Your task to perform on an android device: What's on my calendar today? Image 0: 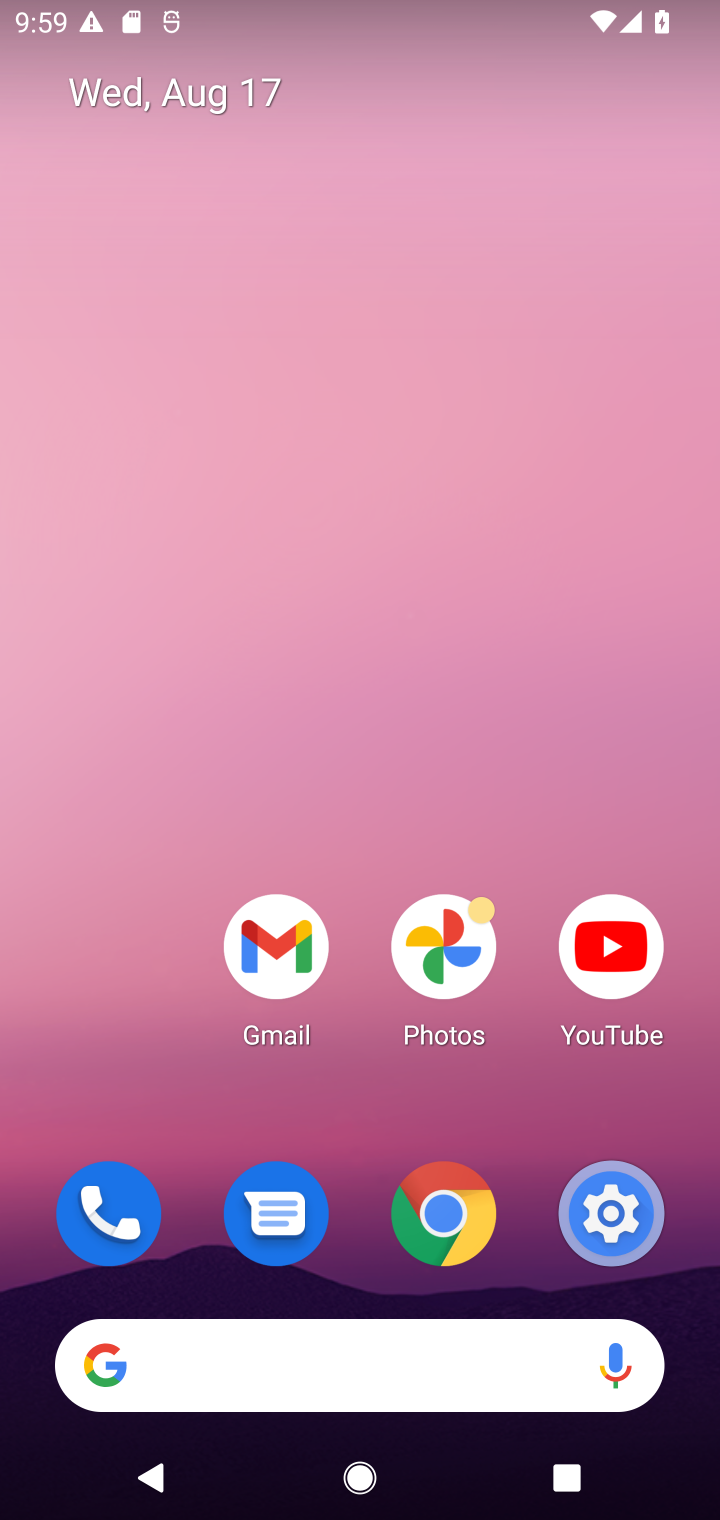
Step 0: drag from (537, 1135) to (243, 9)
Your task to perform on an android device: What's on my calendar today? Image 1: 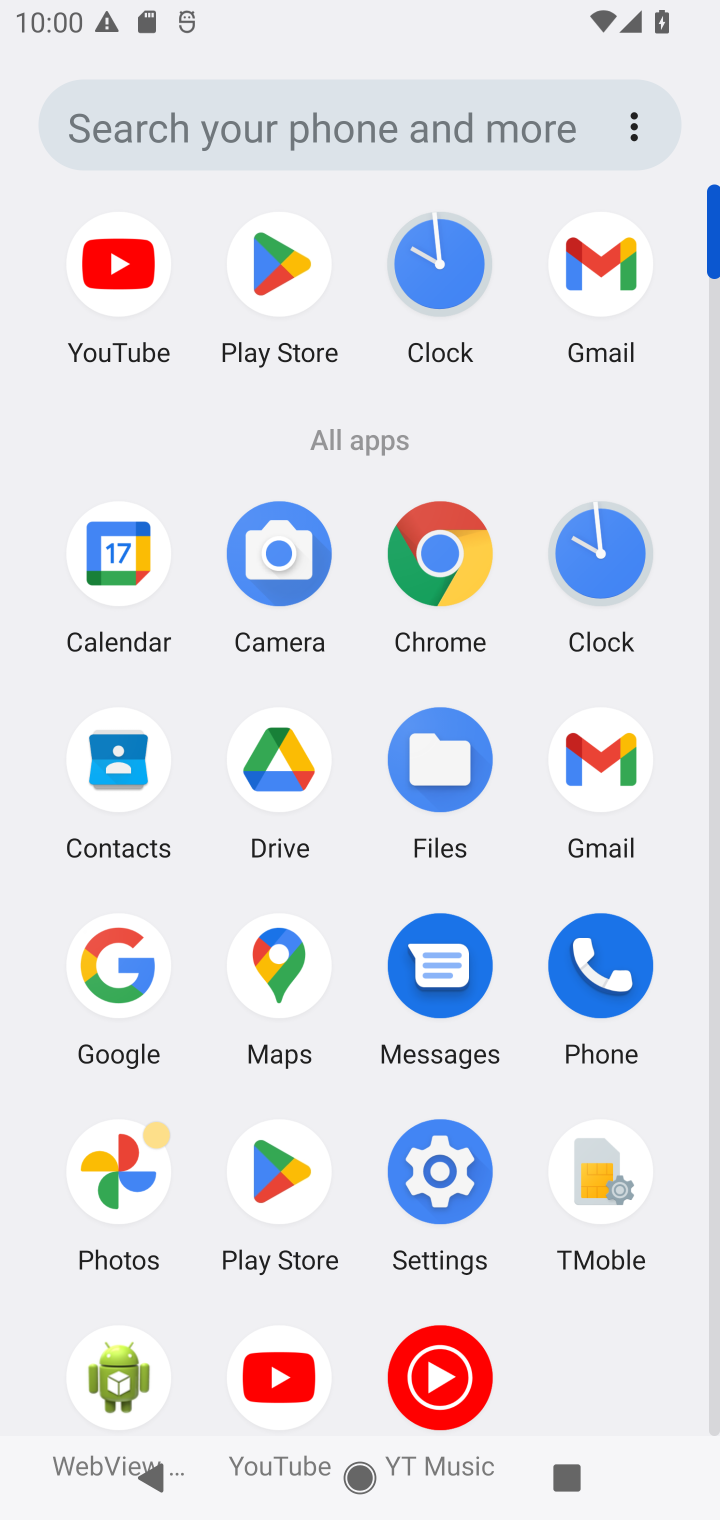
Step 1: click (103, 581)
Your task to perform on an android device: What's on my calendar today? Image 2: 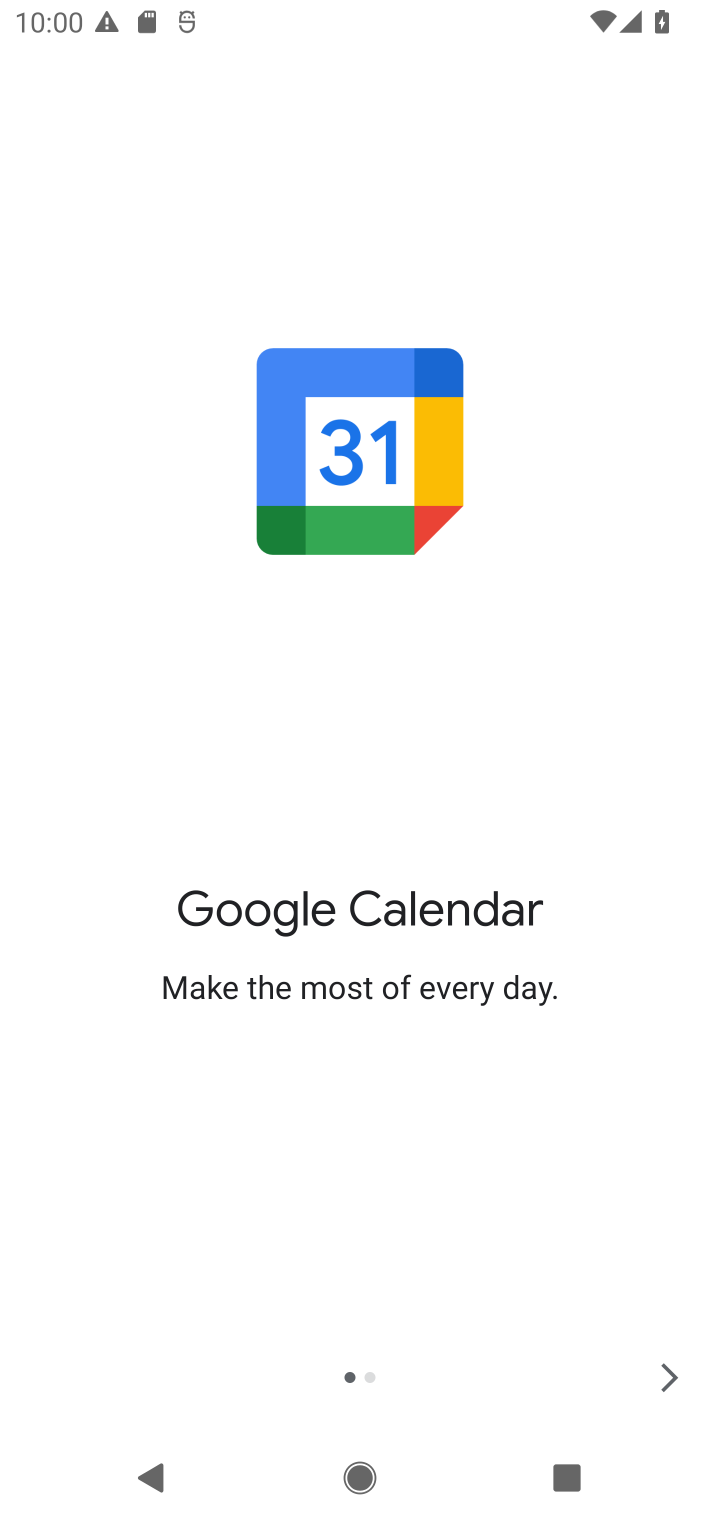
Step 2: click (662, 1367)
Your task to perform on an android device: What's on my calendar today? Image 3: 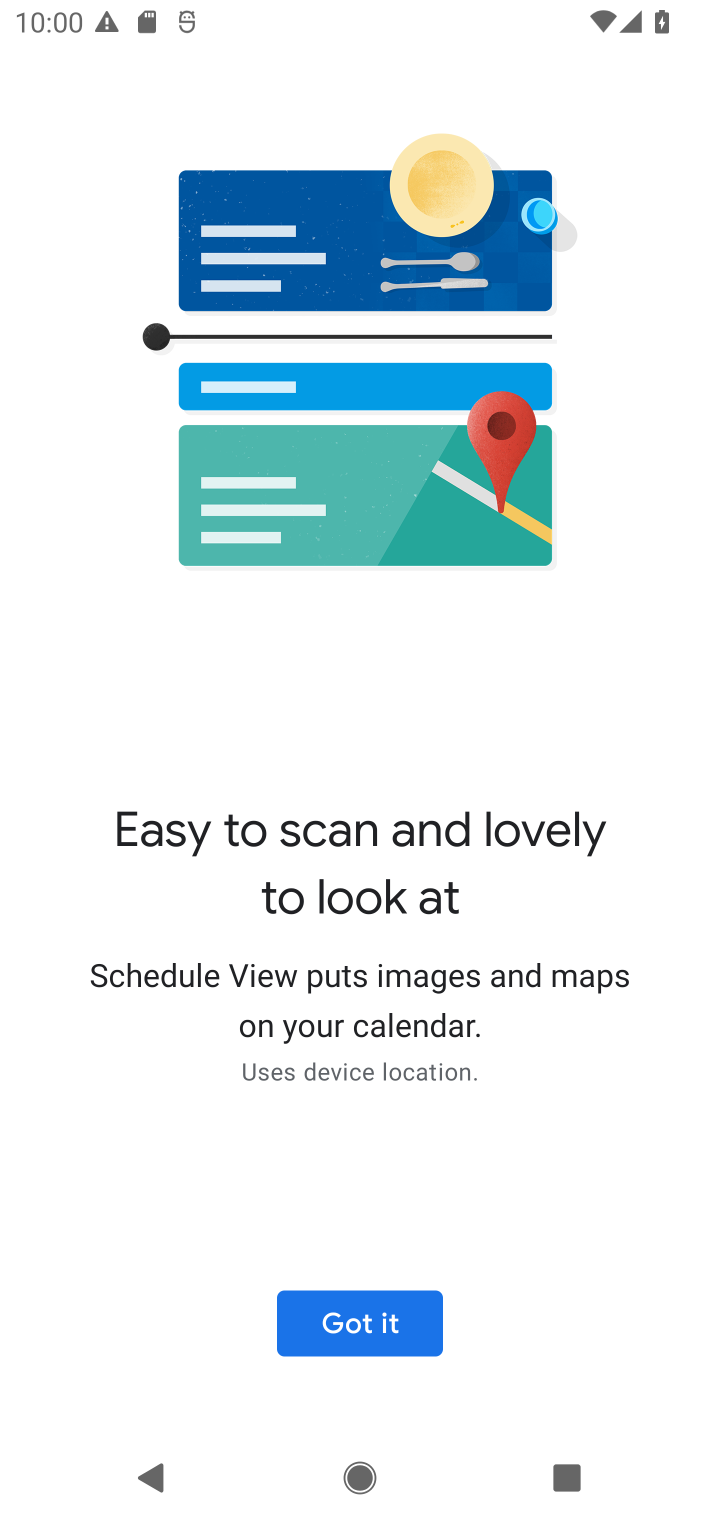
Step 3: drag from (662, 1367) to (385, 1333)
Your task to perform on an android device: What's on my calendar today? Image 4: 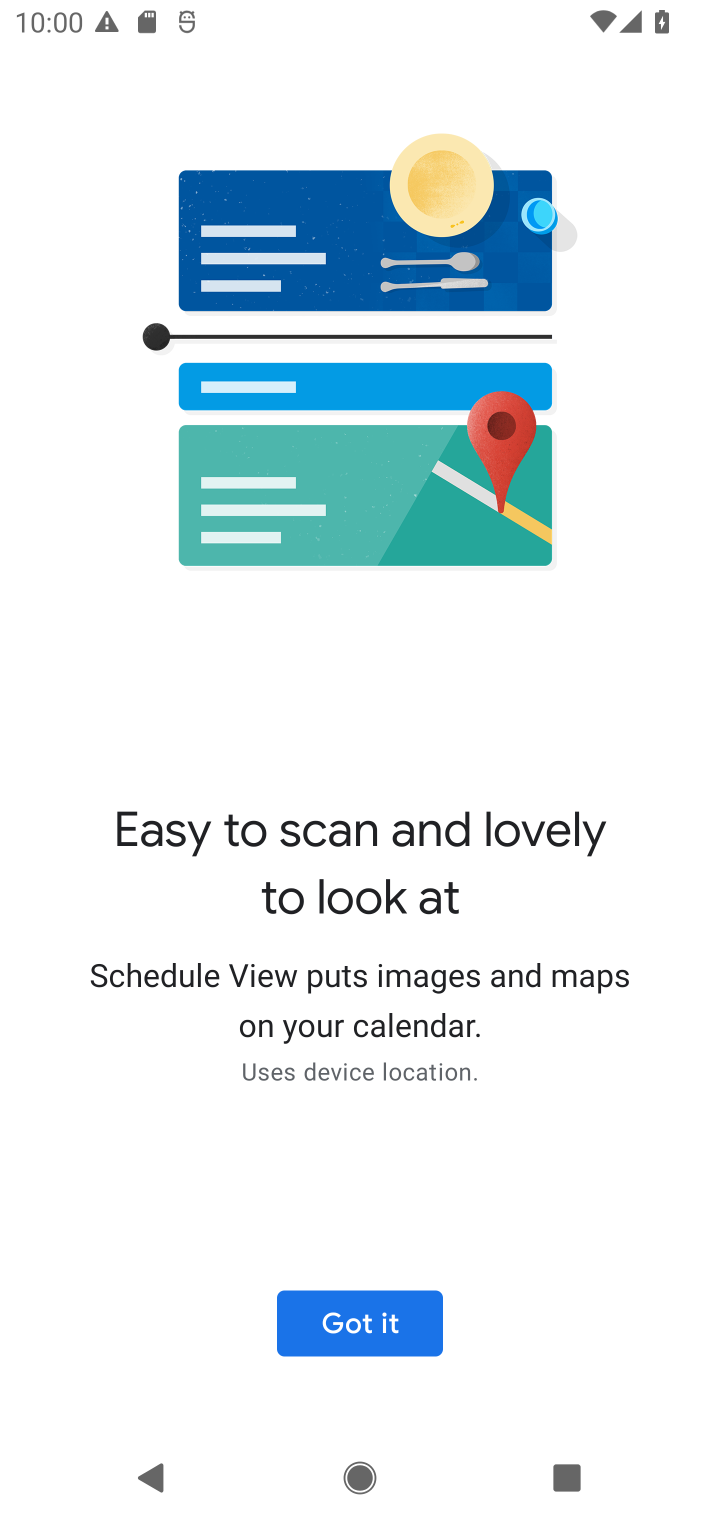
Step 4: click (385, 1333)
Your task to perform on an android device: What's on my calendar today? Image 5: 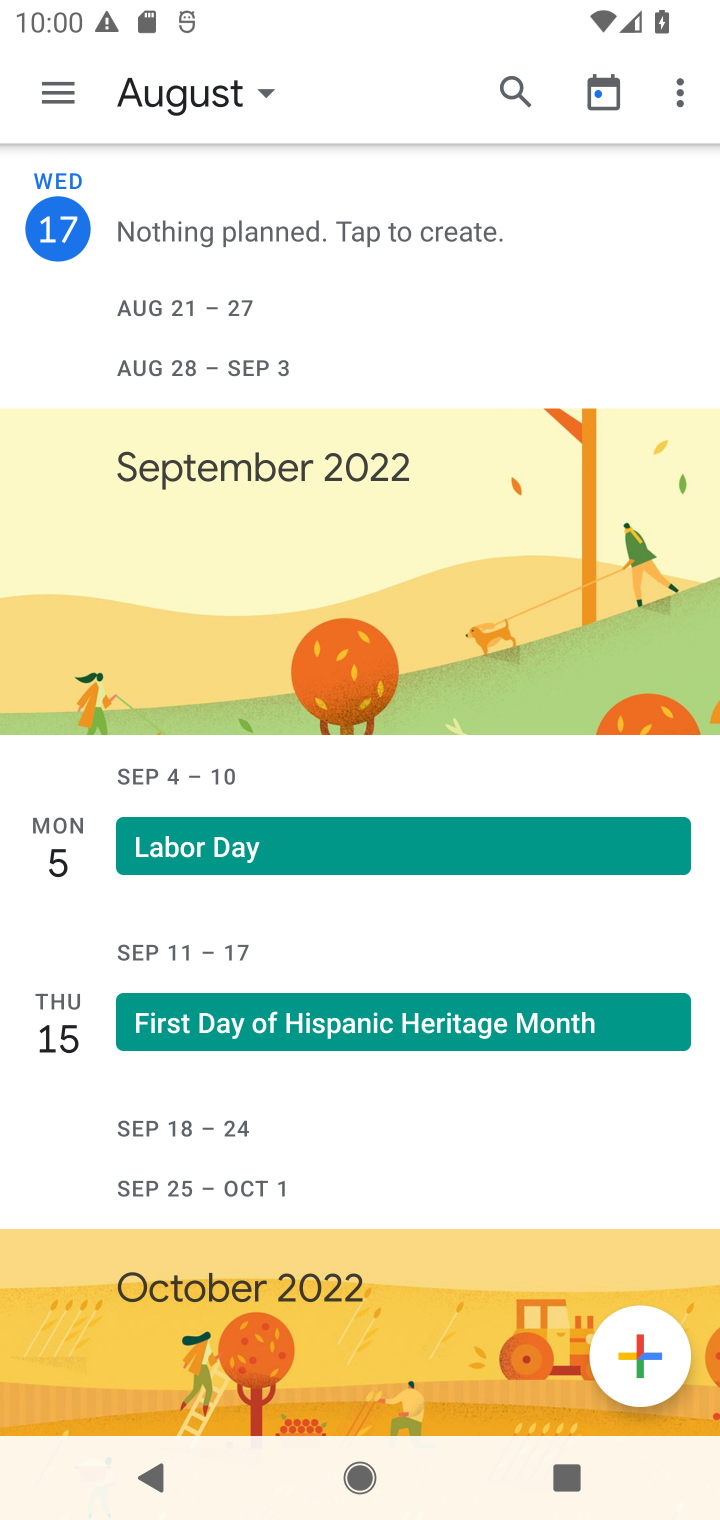
Step 5: task complete